Your task to perform on an android device: turn pop-ups off in chrome Image 0: 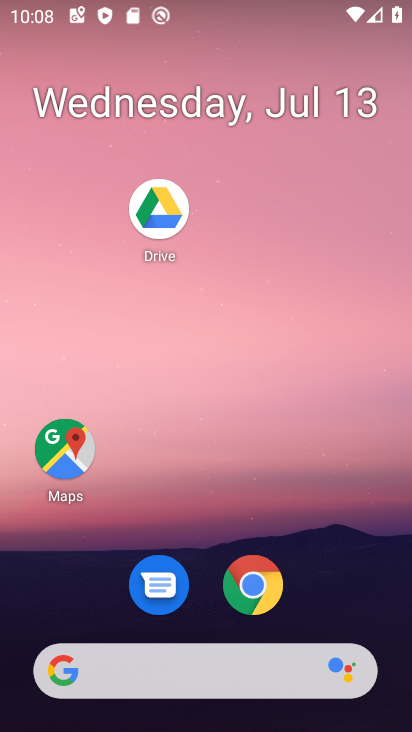
Step 0: press home button
Your task to perform on an android device: turn pop-ups off in chrome Image 1: 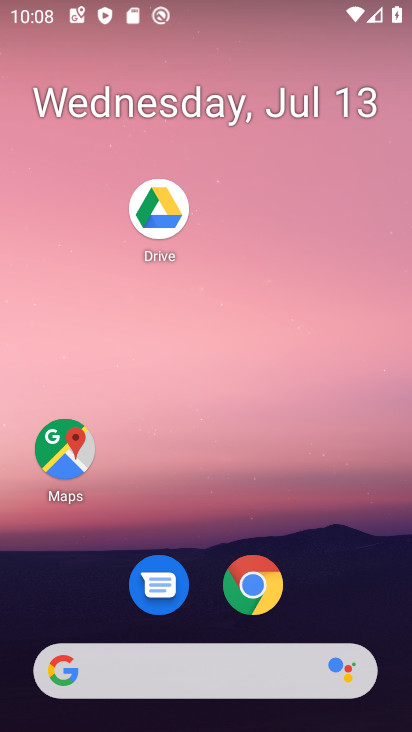
Step 1: click (246, 591)
Your task to perform on an android device: turn pop-ups off in chrome Image 2: 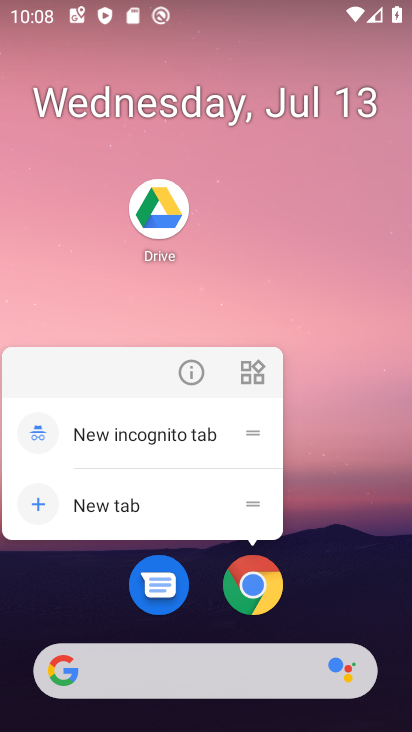
Step 2: click (253, 589)
Your task to perform on an android device: turn pop-ups off in chrome Image 3: 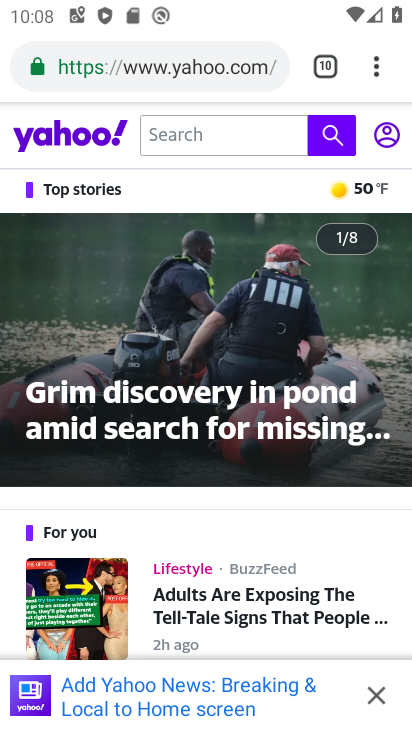
Step 3: drag from (377, 71) to (282, 582)
Your task to perform on an android device: turn pop-ups off in chrome Image 4: 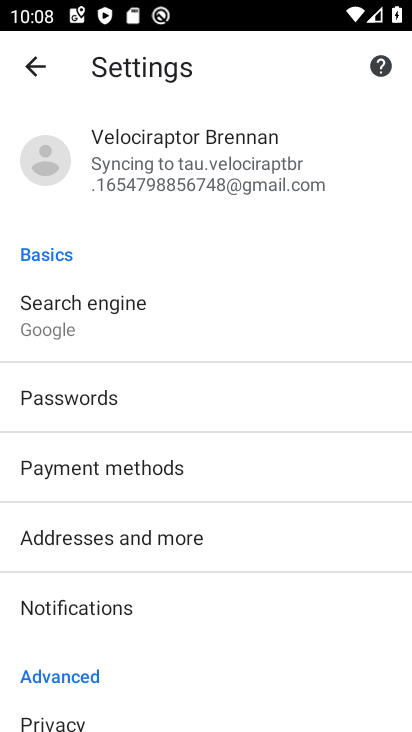
Step 4: drag from (207, 639) to (299, 338)
Your task to perform on an android device: turn pop-ups off in chrome Image 5: 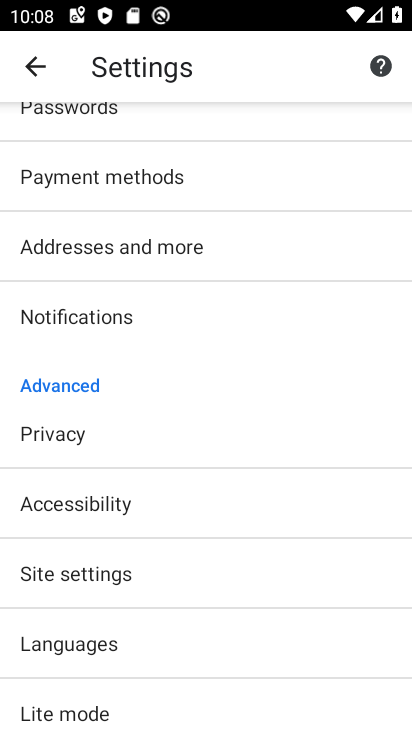
Step 5: drag from (234, 560) to (313, 439)
Your task to perform on an android device: turn pop-ups off in chrome Image 6: 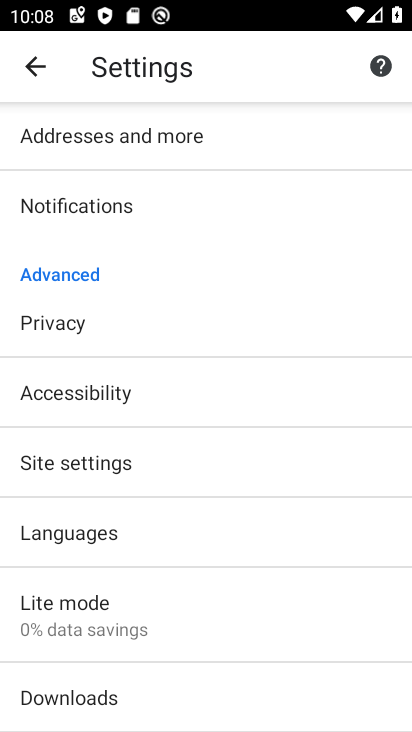
Step 6: click (131, 476)
Your task to perform on an android device: turn pop-ups off in chrome Image 7: 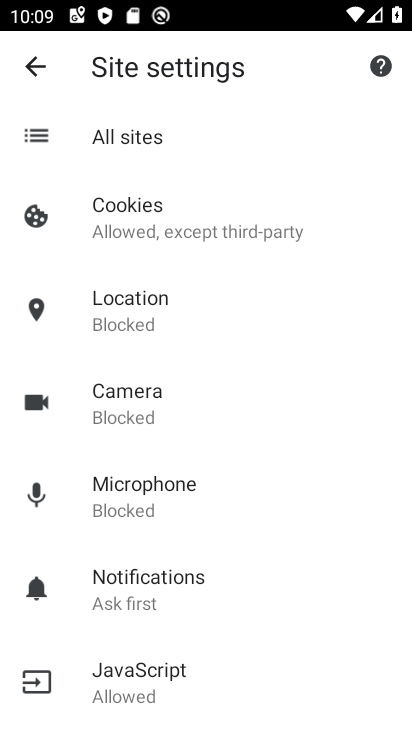
Step 7: drag from (224, 633) to (312, 315)
Your task to perform on an android device: turn pop-ups off in chrome Image 8: 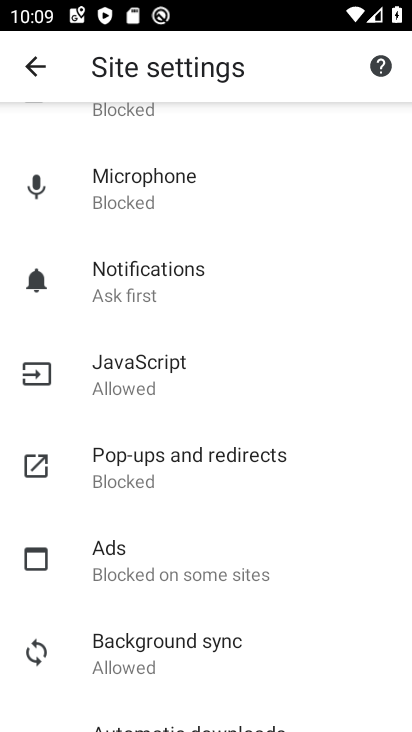
Step 8: click (191, 450)
Your task to perform on an android device: turn pop-ups off in chrome Image 9: 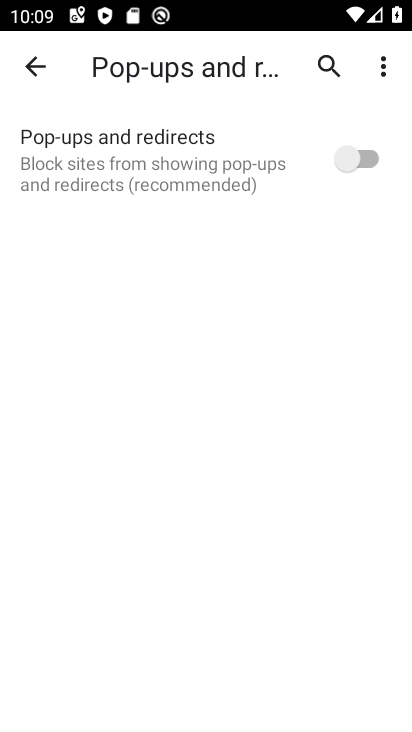
Step 9: task complete